Your task to perform on an android device: Search for "bose soundsport free" on target.com, select the first entry, and add it to the cart. Image 0: 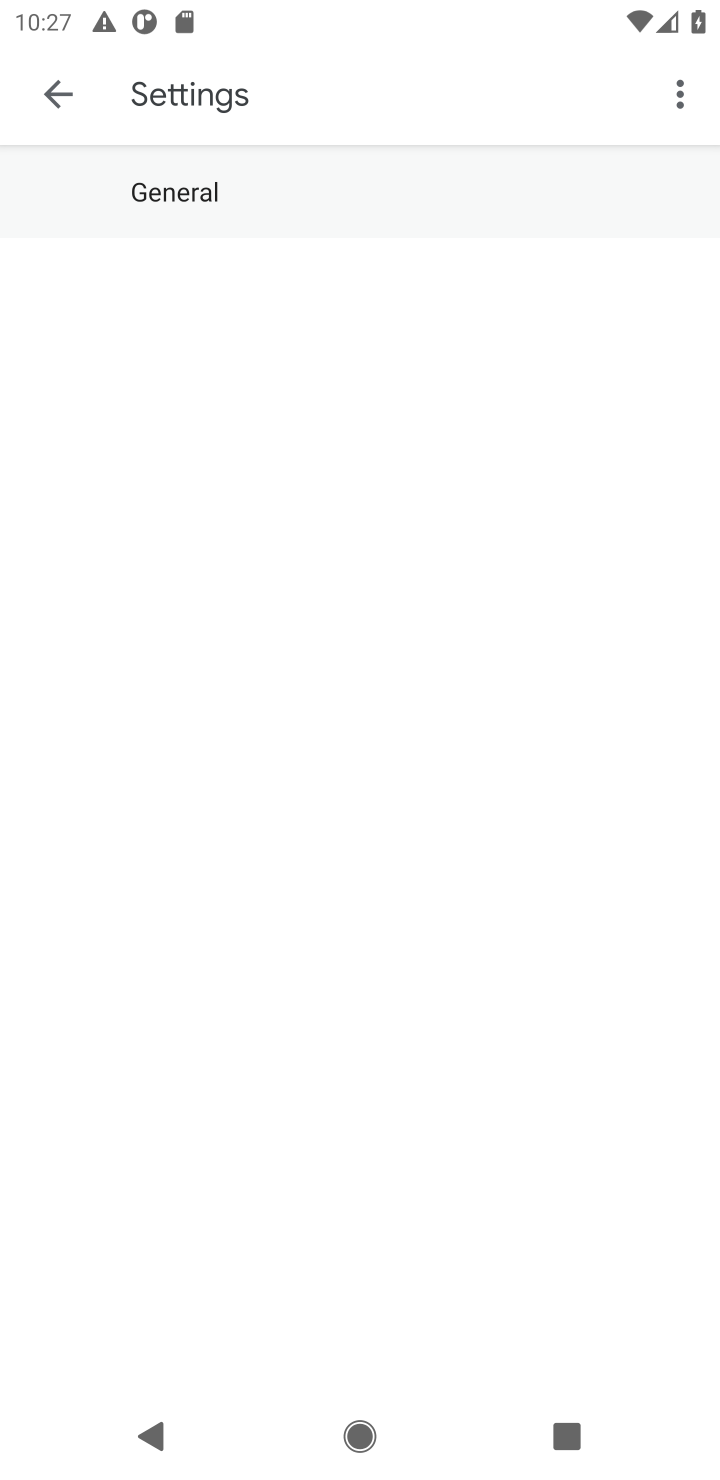
Step 0: press home button
Your task to perform on an android device: Search for "bose soundsport free" on target.com, select the first entry, and add it to the cart. Image 1: 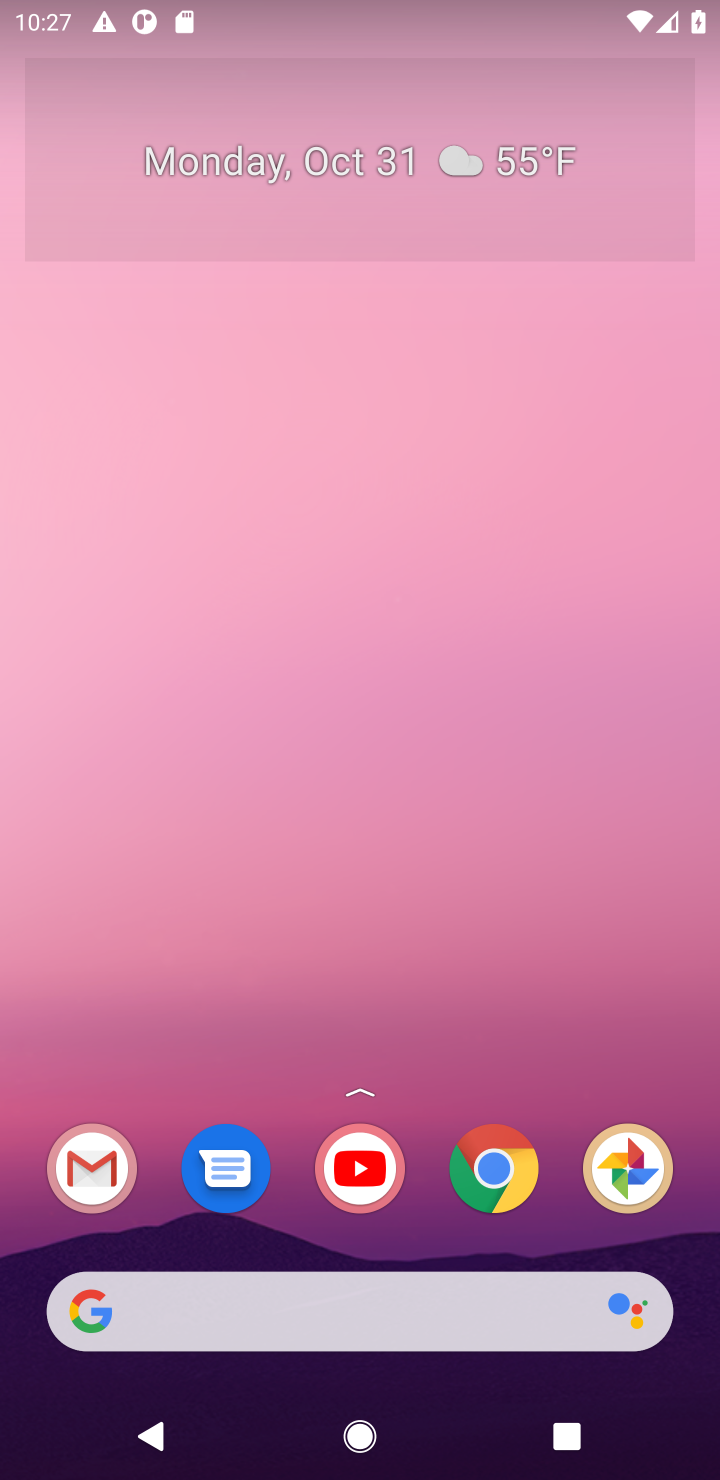
Step 1: click (493, 1170)
Your task to perform on an android device: Search for "bose soundsport free" on target.com, select the first entry, and add it to the cart. Image 2: 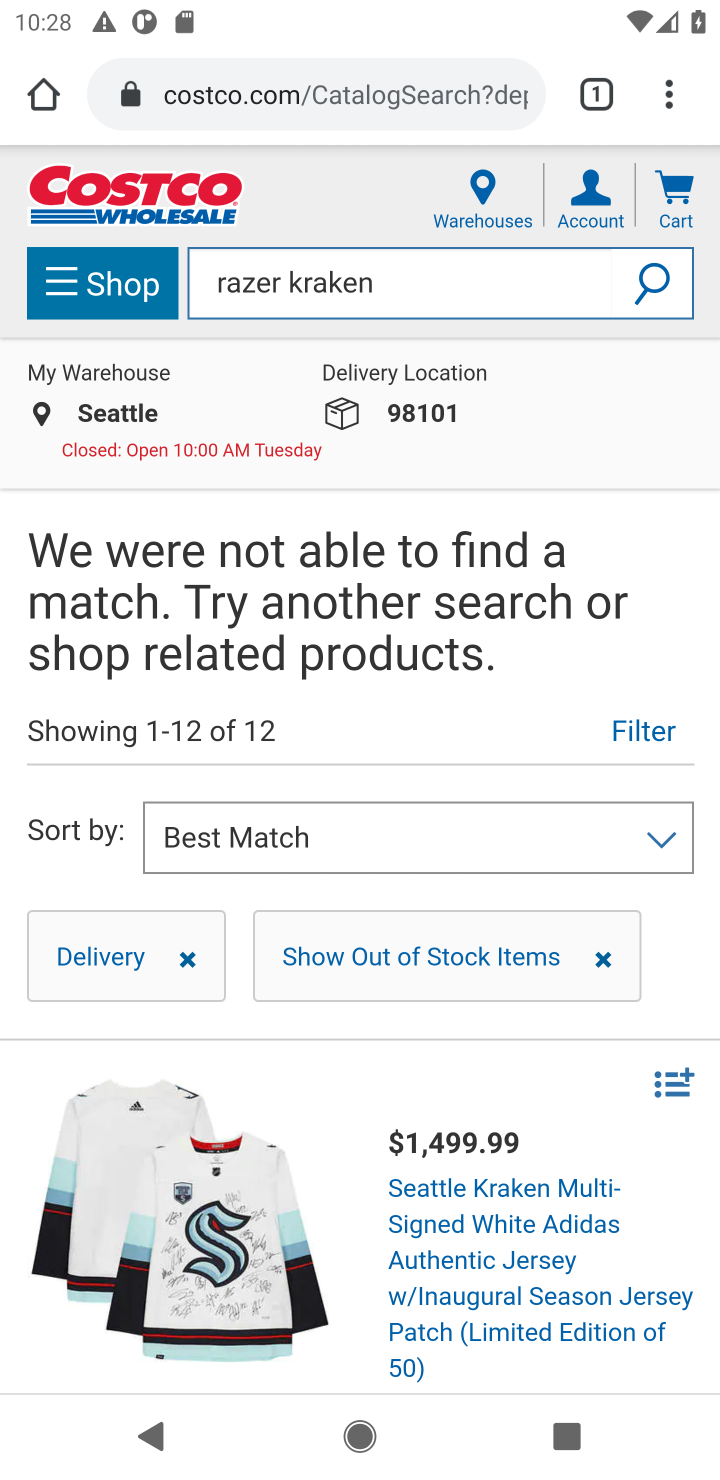
Step 2: click (399, 97)
Your task to perform on an android device: Search for "bose soundsport free" on target.com, select the first entry, and add it to the cart. Image 3: 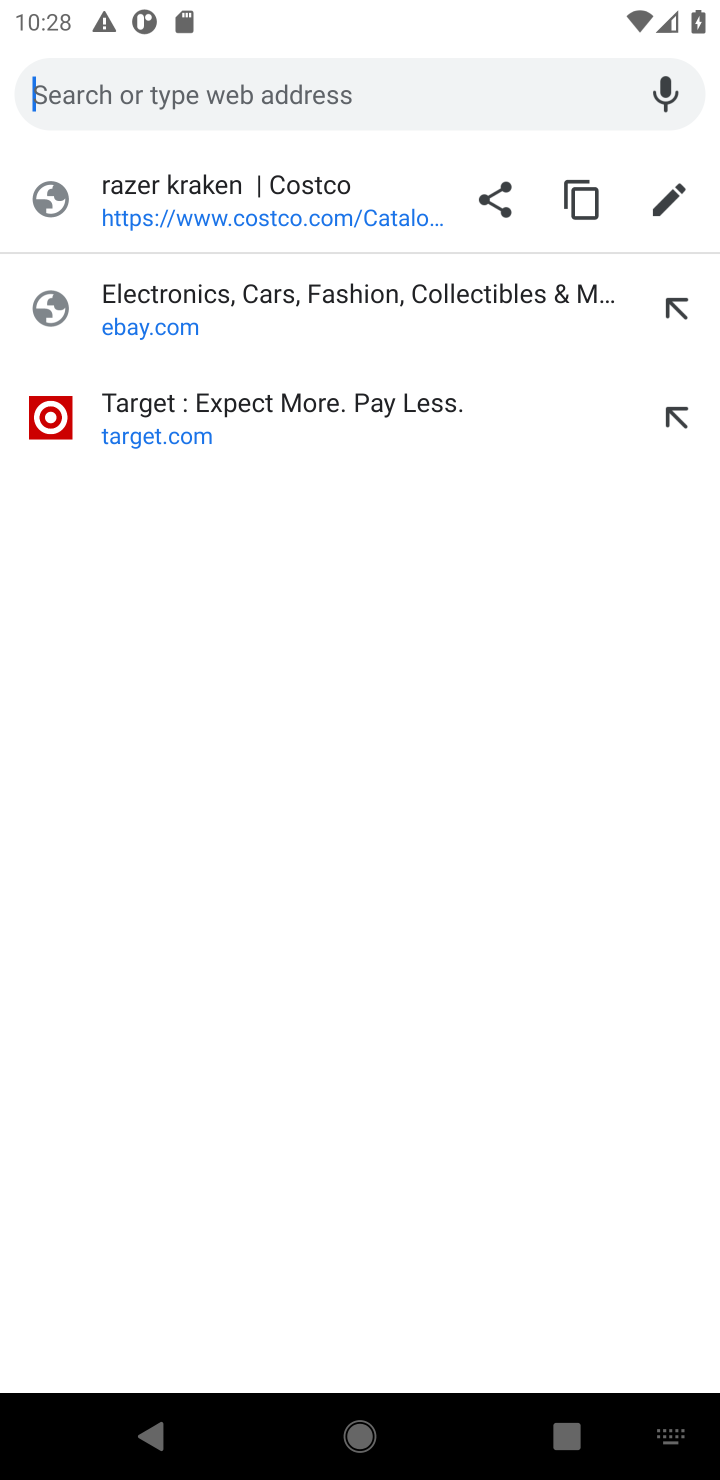
Step 3: type "target.com"
Your task to perform on an android device: Search for "bose soundsport free" on target.com, select the first entry, and add it to the cart. Image 4: 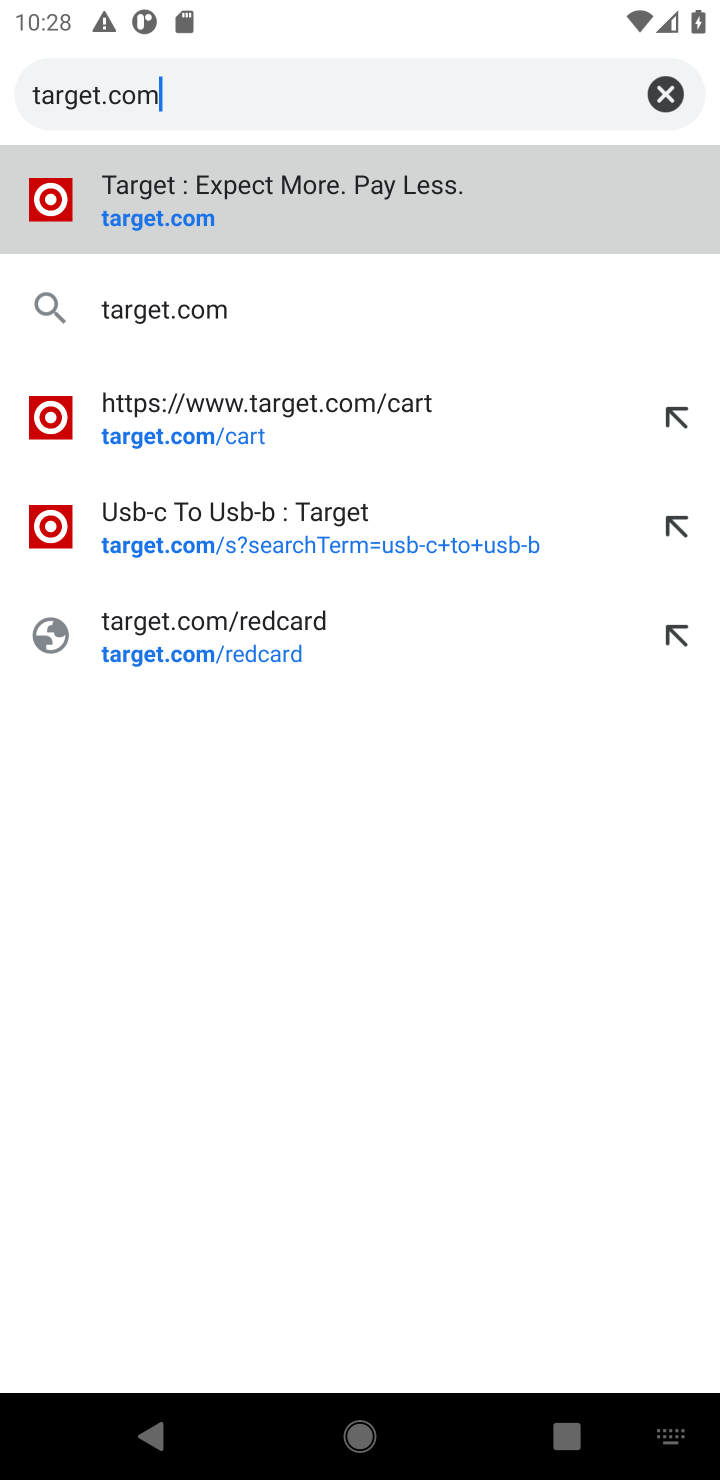
Step 4: click (255, 205)
Your task to perform on an android device: Search for "bose soundsport free" on target.com, select the first entry, and add it to the cart. Image 5: 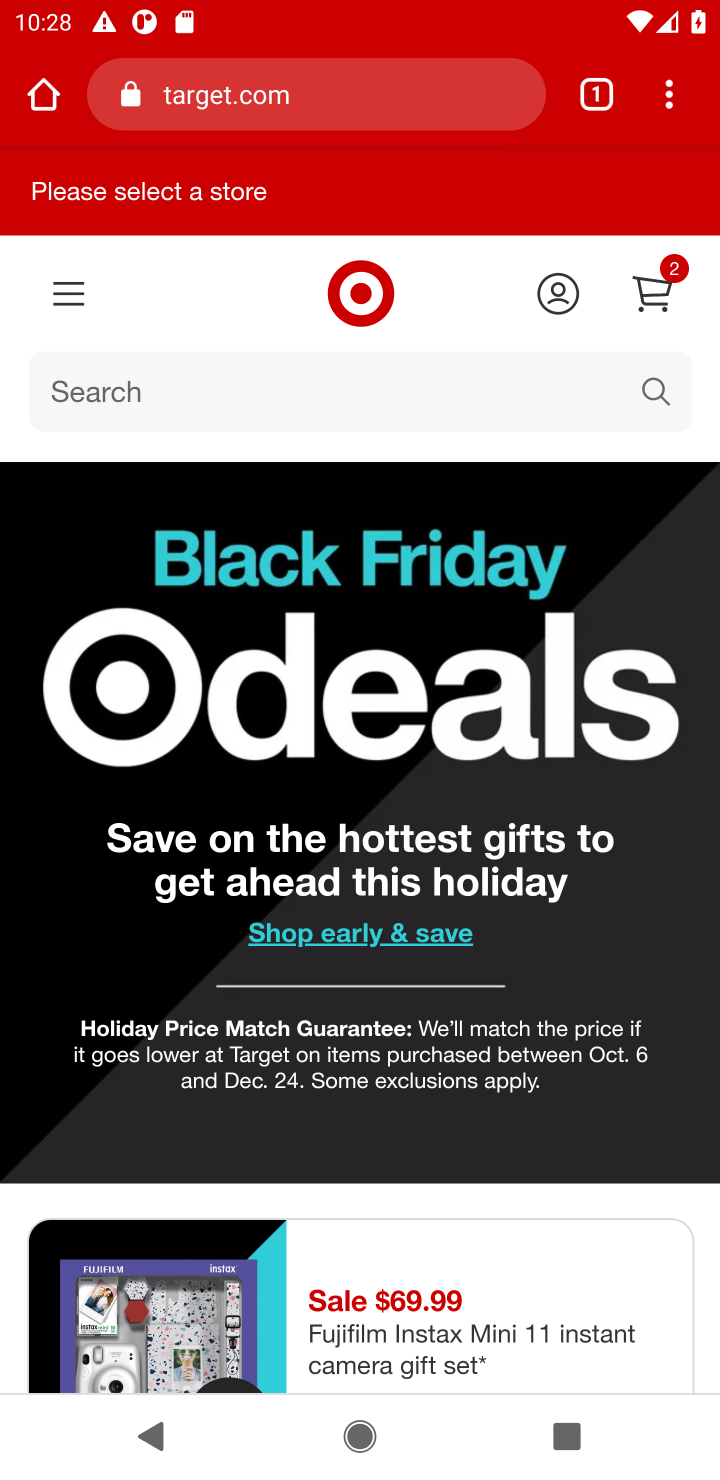
Step 5: click (570, 382)
Your task to perform on an android device: Search for "bose soundsport free" on target.com, select the first entry, and add it to the cart. Image 6: 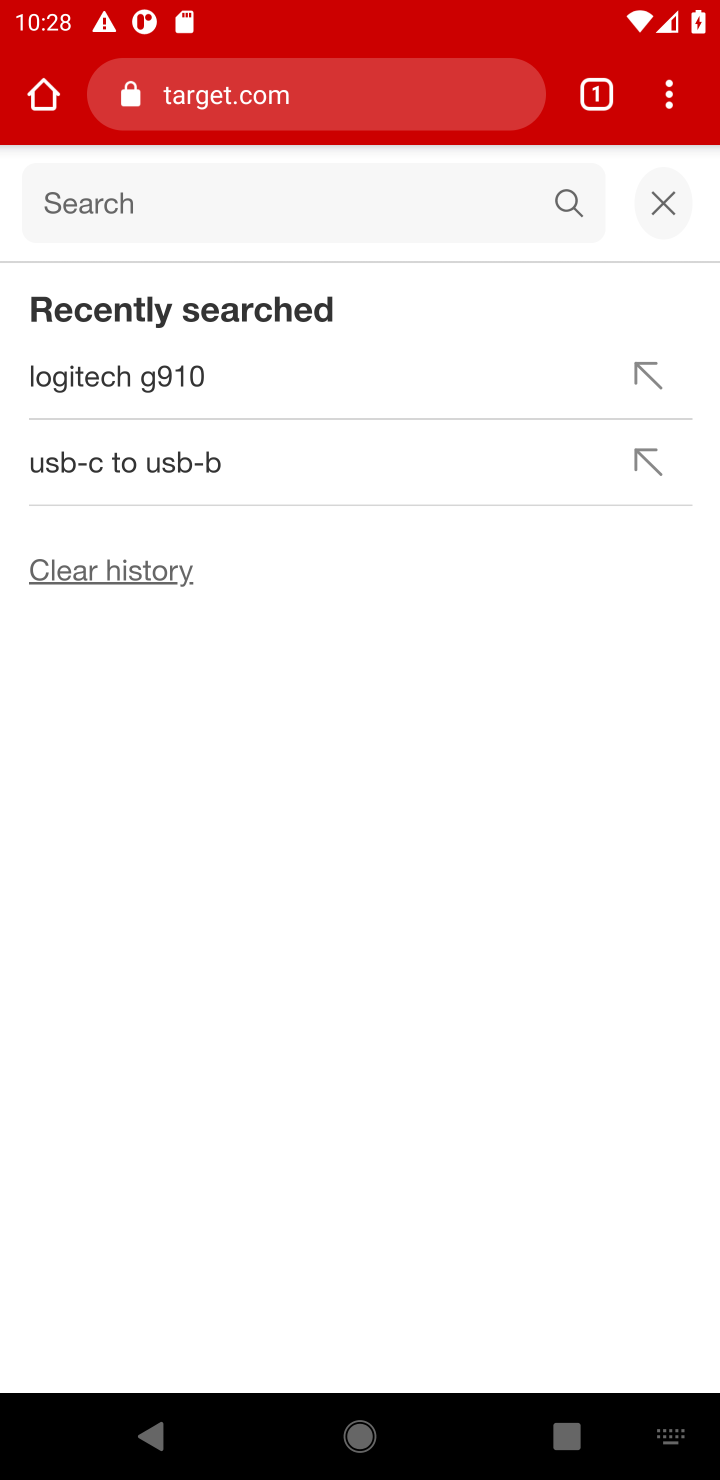
Step 6: type "bose soundsport free"
Your task to perform on an android device: Search for "bose soundsport free" on target.com, select the first entry, and add it to the cart. Image 7: 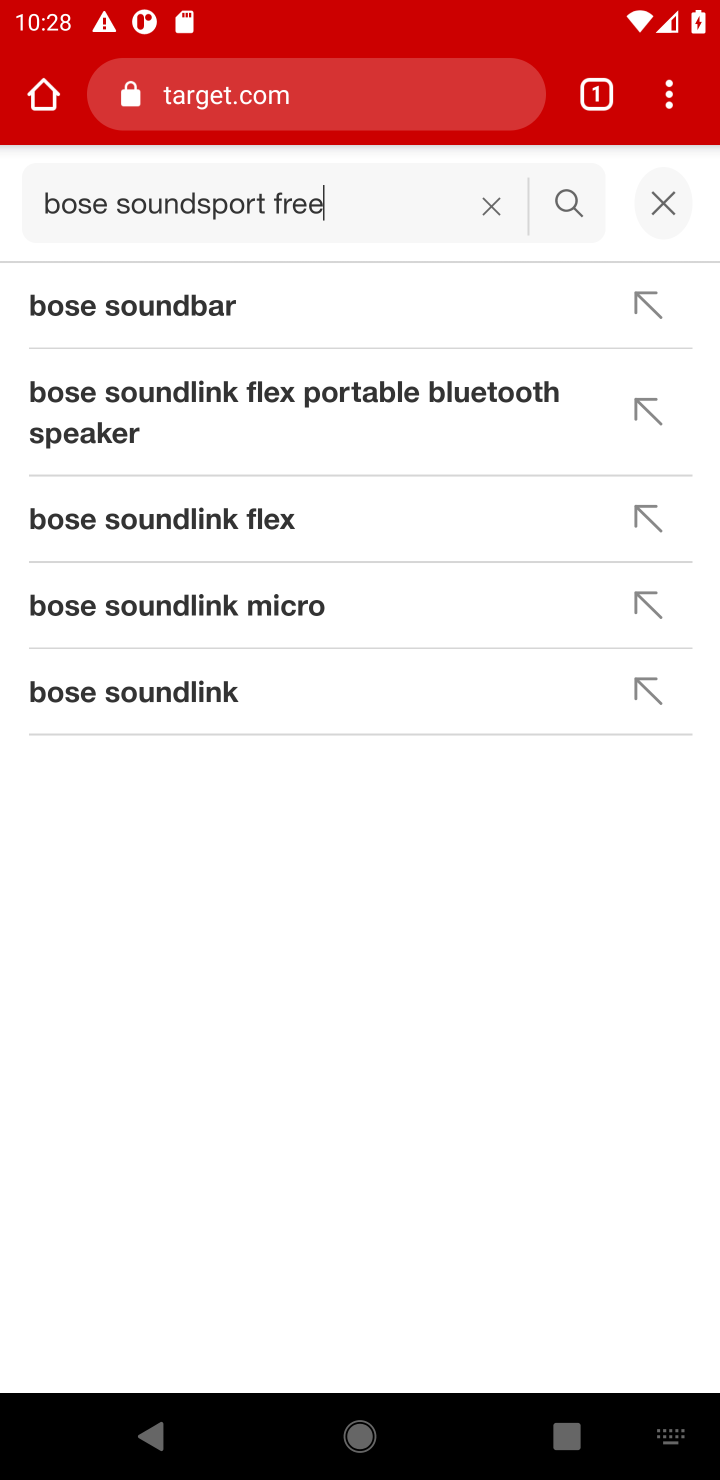
Step 7: press enter
Your task to perform on an android device: Search for "bose soundsport free" on target.com, select the first entry, and add it to the cart. Image 8: 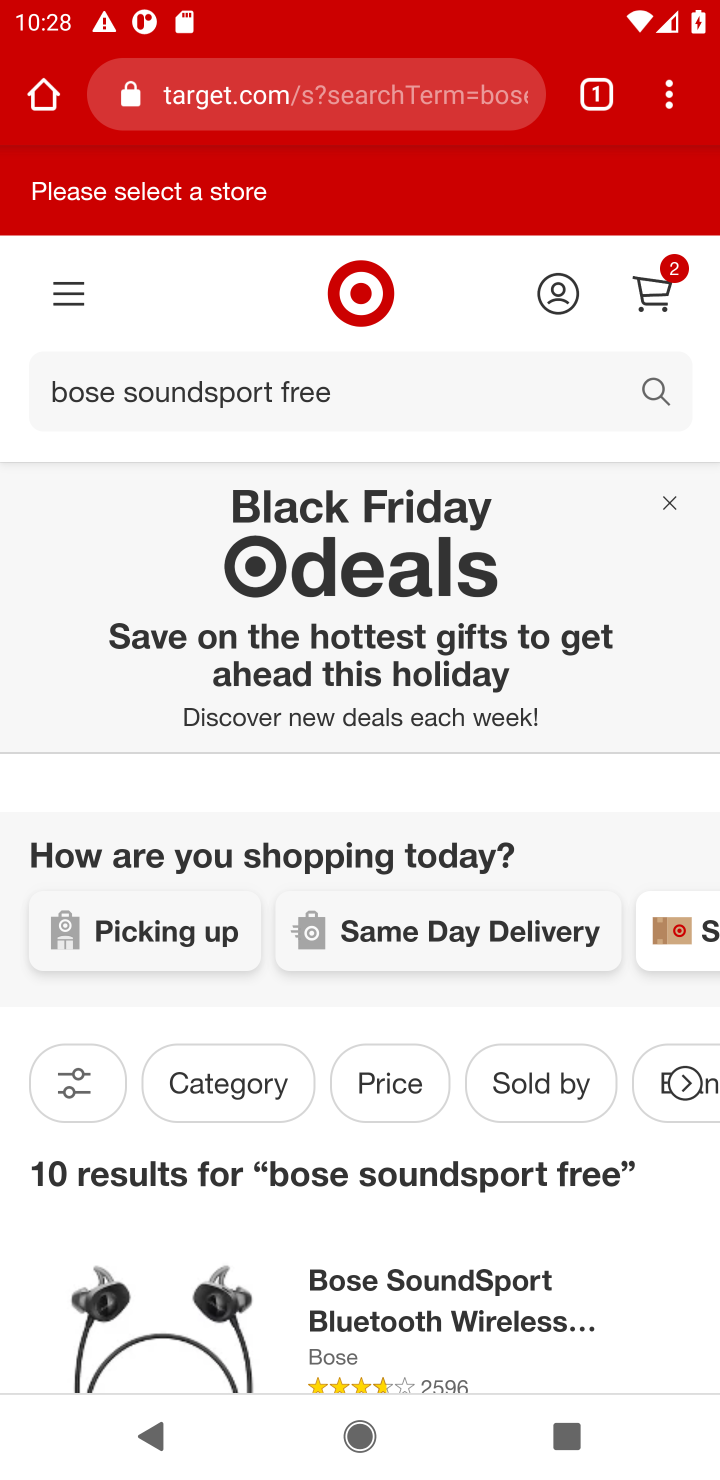
Step 8: click (366, 1329)
Your task to perform on an android device: Search for "bose soundsport free" on target.com, select the first entry, and add it to the cart. Image 9: 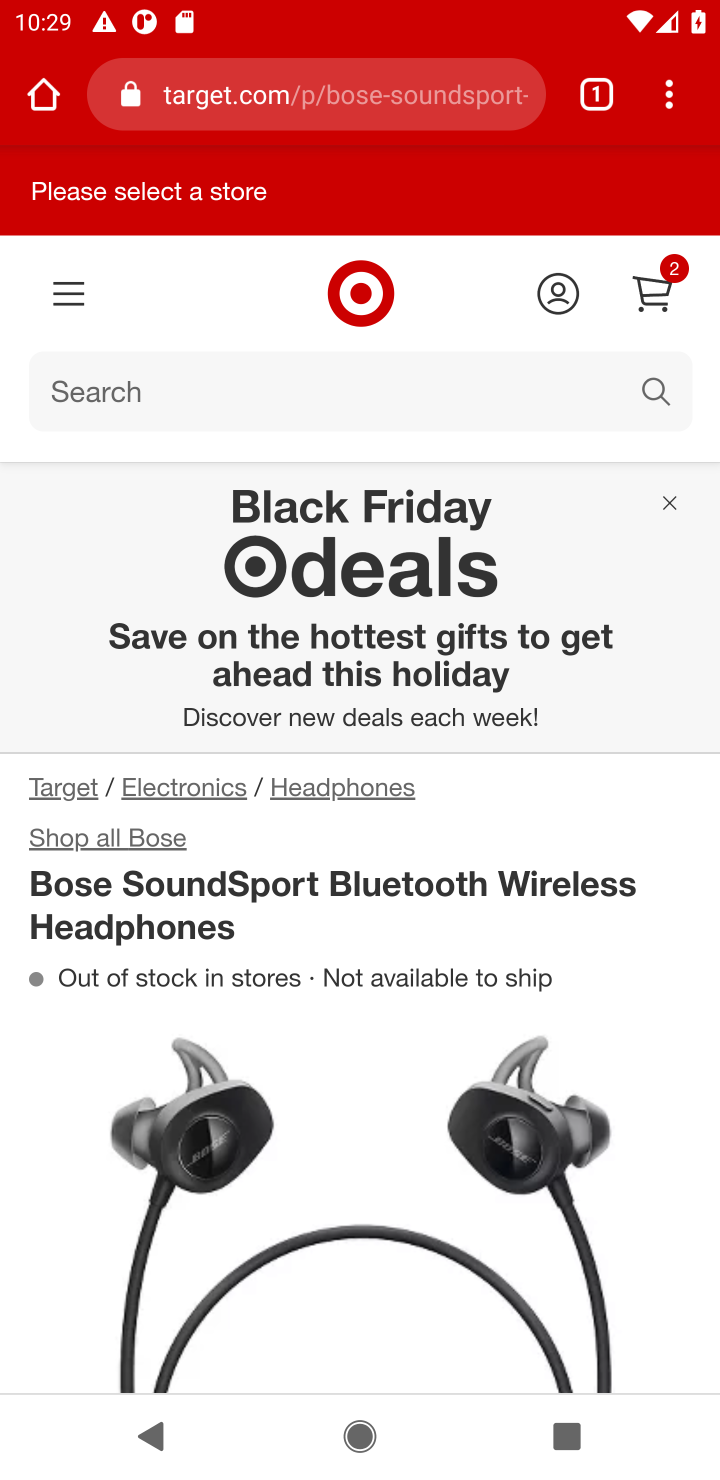
Step 9: drag from (634, 1216) to (598, 488)
Your task to perform on an android device: Search for "bose soundsport free" on target.com, select the first entry, and add it to the cart. Image 10: 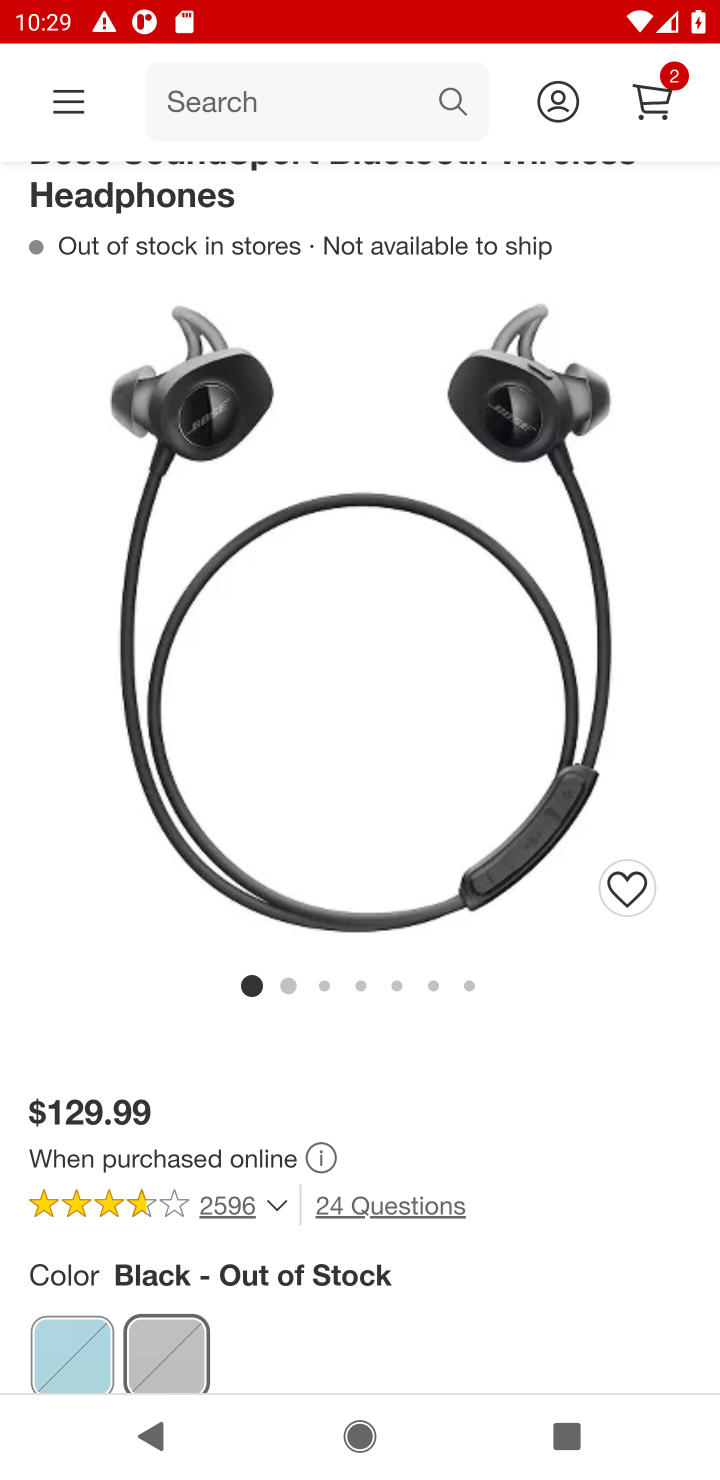
Step 10: drag from (473, 1150) to (533, 423)
Your task to perform on an android device: Search for "bose soundsport free" on target.com, select the first entry, and add it to the cart. Image 11: 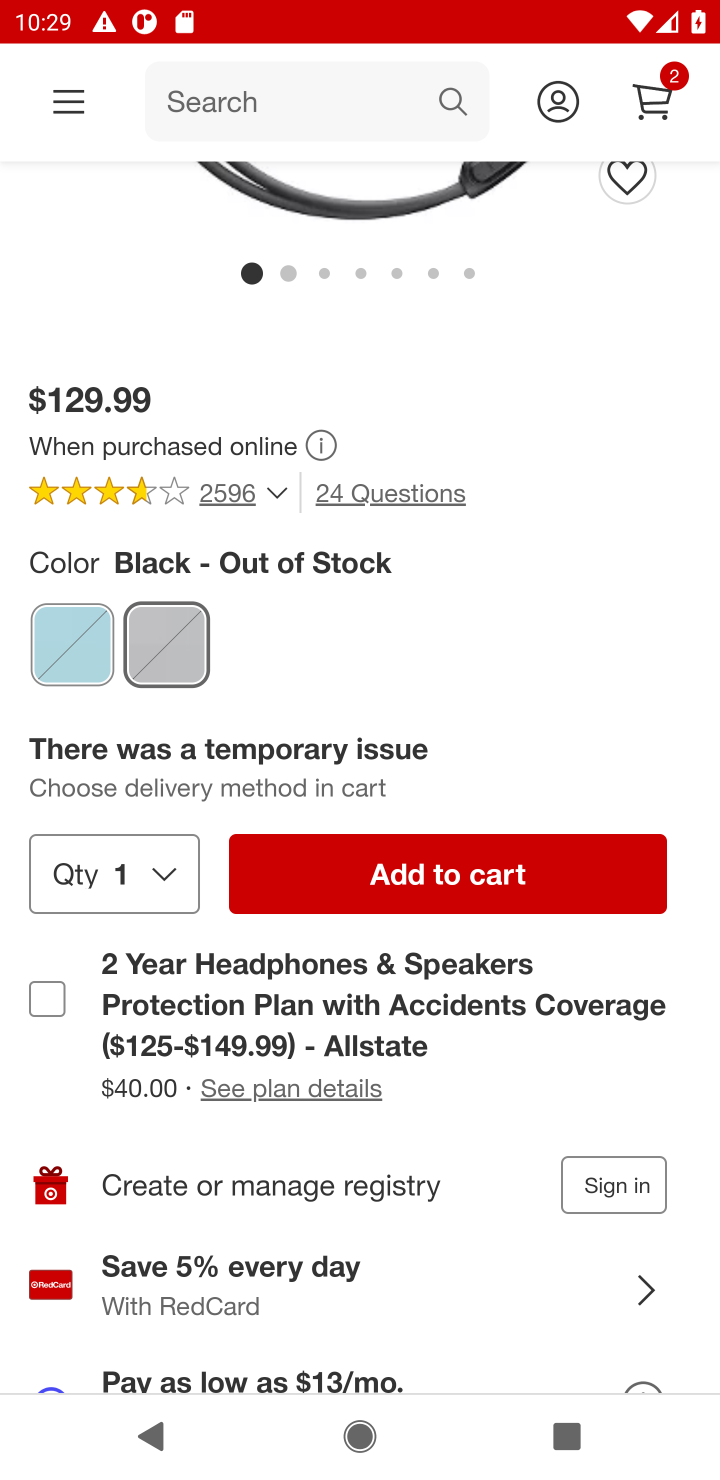
Step 11: click (416, 877)
Your task to perform on an android device: Search for "bose soundsport free" on target.com, select the first entry, and add it to the cart. Image 12: 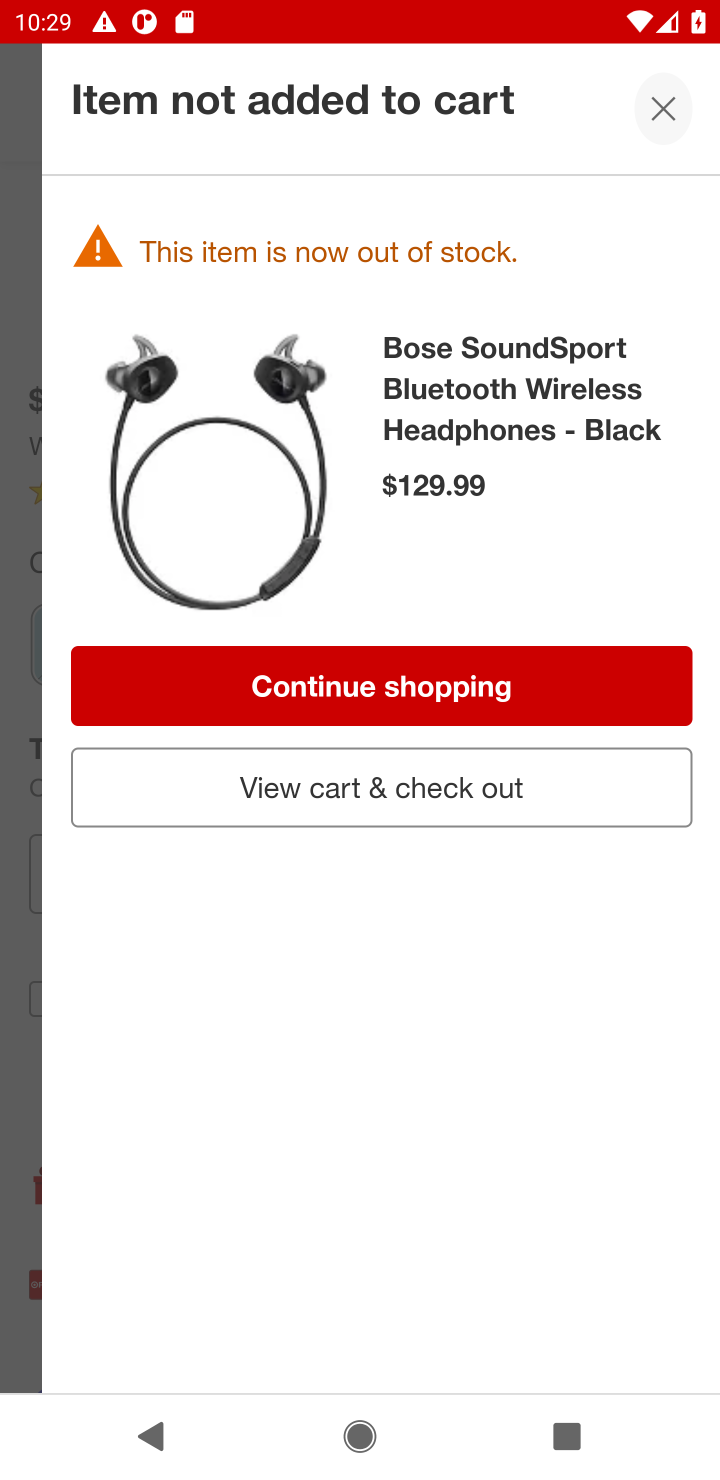
Step 12: click (445, 704)
Your task to perform on an android device: Search for "bose soundsport free" on target.com, select the first entry, and add it to the cart. Image 13: 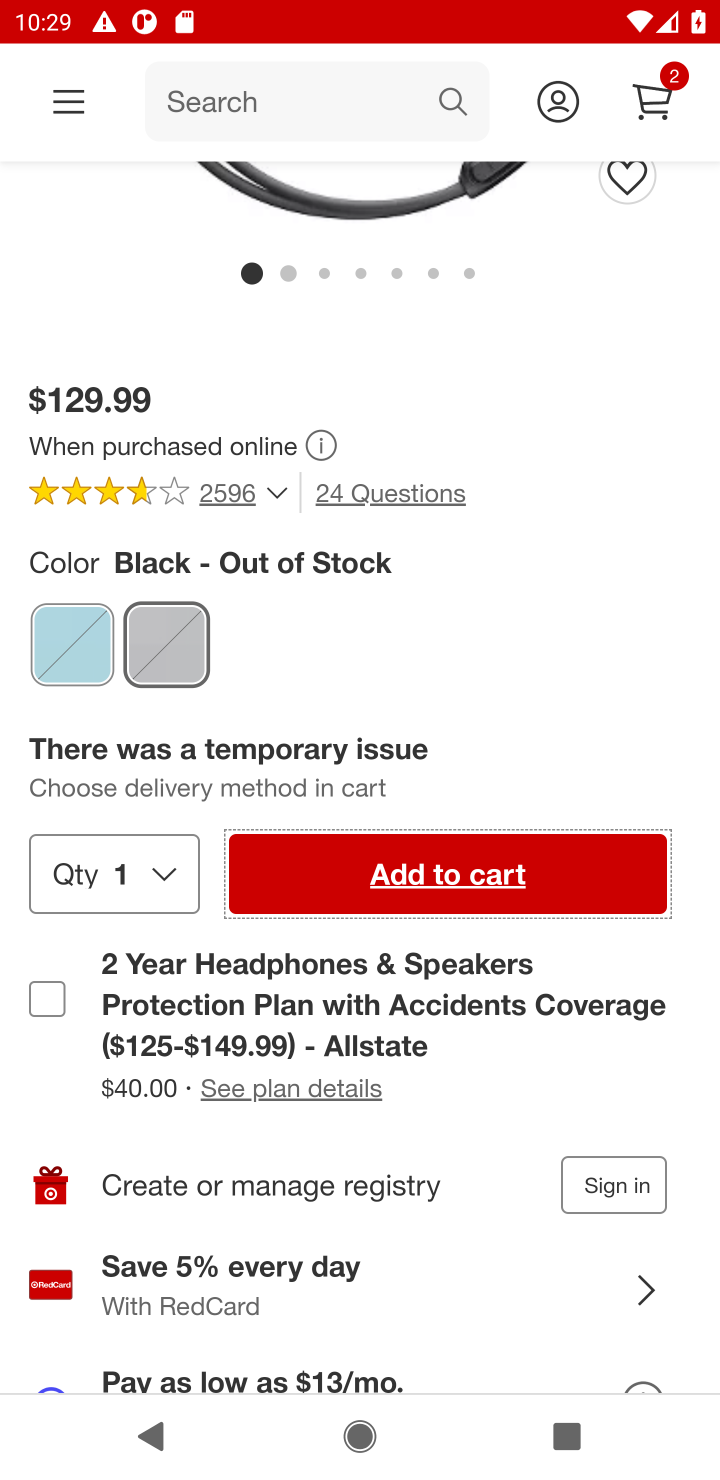
Step 13: task complete